Your task to perform on an android device: set the stopwatch Image 0: 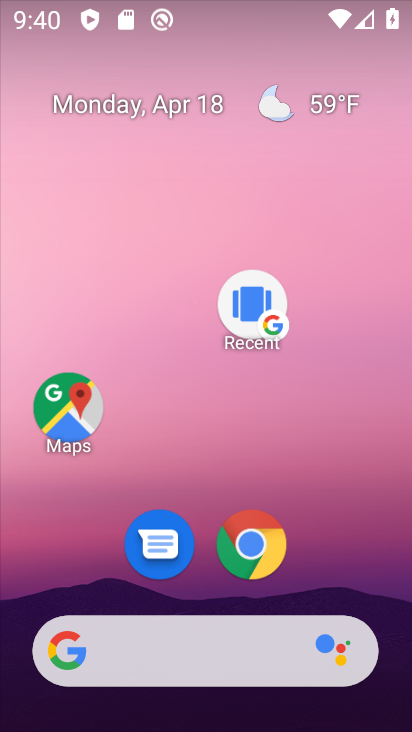
Step 0: drag from (353, 547) to (305, 182)
Your task to perform on an android device: set the stopwatch Image 1: 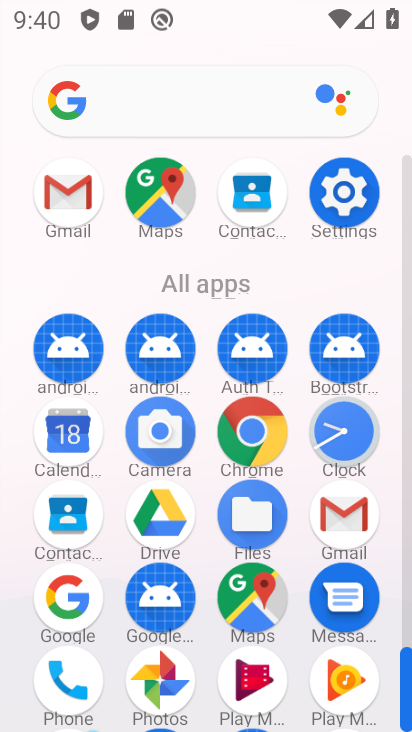
Step 1: click (341, 429)
Your task to perform on an android device: set the stopwatch Image 2: 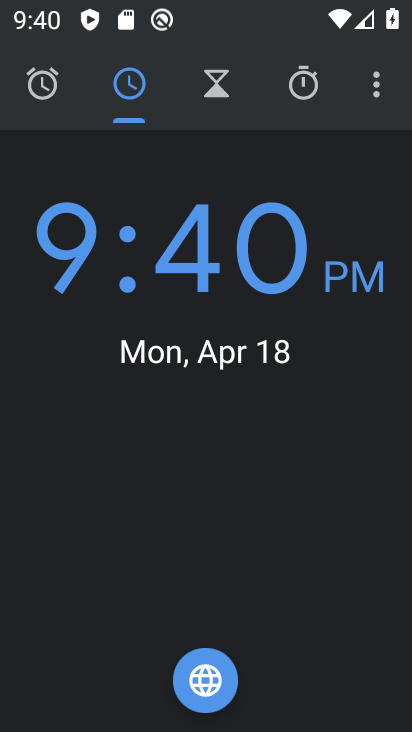
Step 2: click (313, 96)
Your task to perform on an android device: set the stopwatch Image 3: 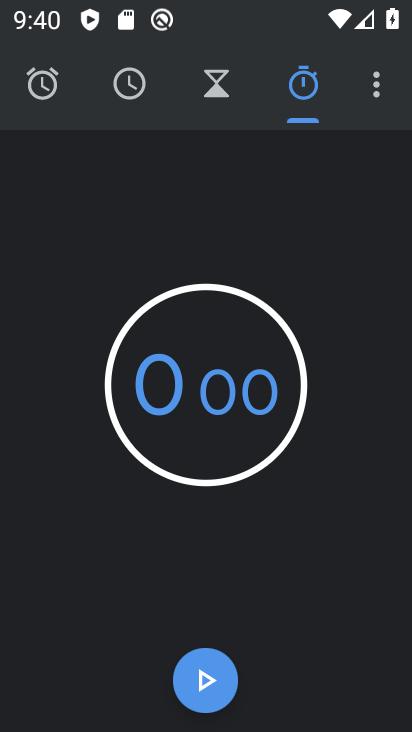
Step 3: click (196, 694)
Your task to perform on an android device: set the stopwatch Image 4: 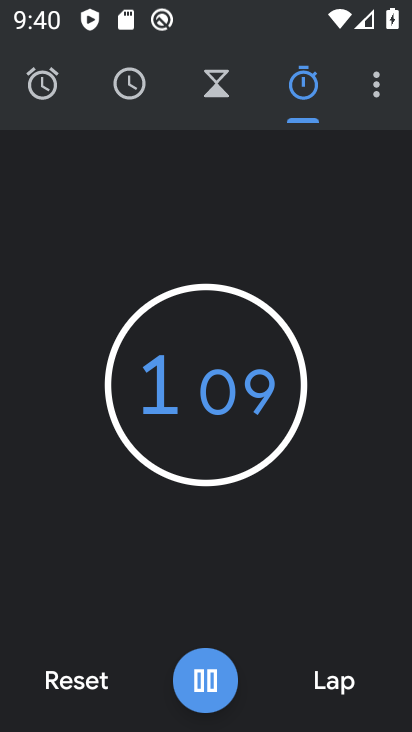
Step 4: task complete